Your task to perform on an android device: visit the assistant section in the google photos Image 0: 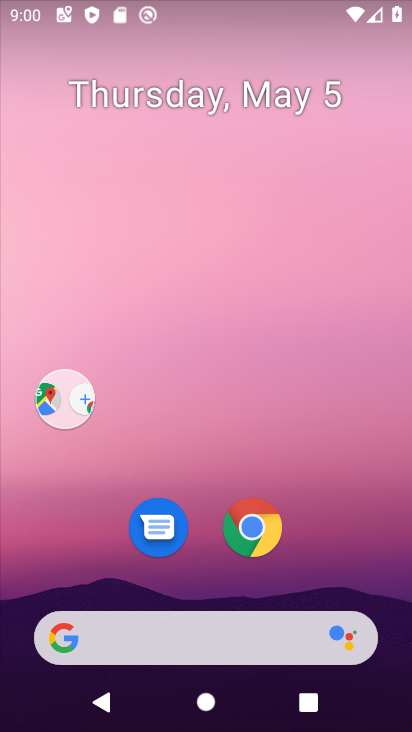
Step 0: drag from (374, 581) to (211, 160)
Your task to perform on an android device: visit the assistant section in the google photos Image 1: 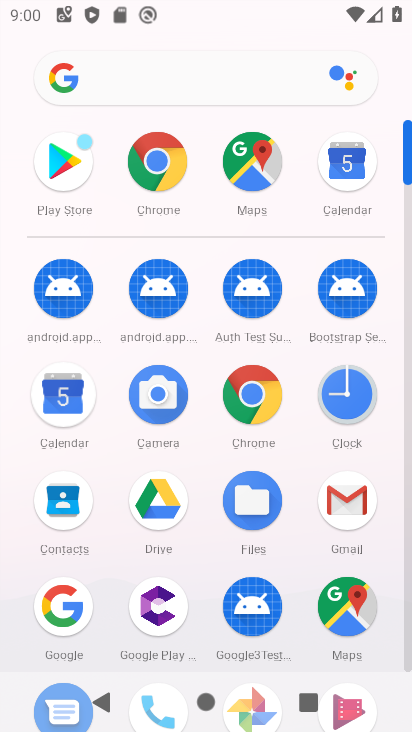
Step 1: drag from (294, 594) to (239, 68)
Your task to perform on an android device: visit the assistant section in the google photos Image 2: 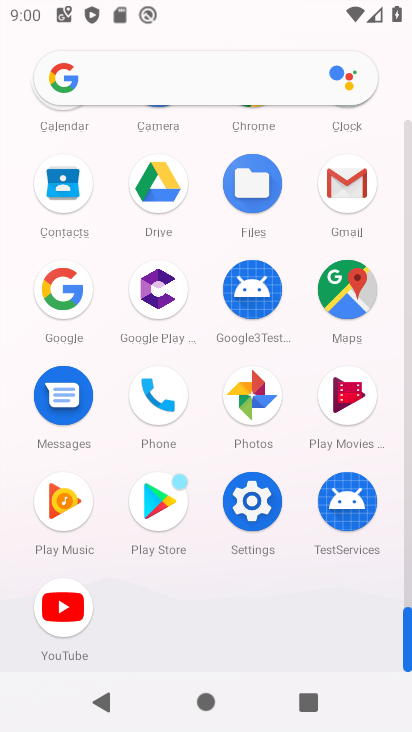
Step 2: click (249, 411)
Your task to perform on an android device: visit the assistant section in the google photos Image 3: 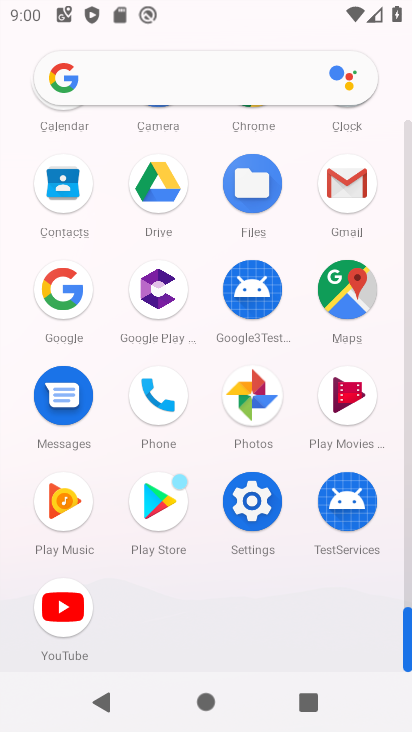
Step 3: click (249, 411)
Your task to perform on an android device: visit the assistant section in the google photos Image 4: 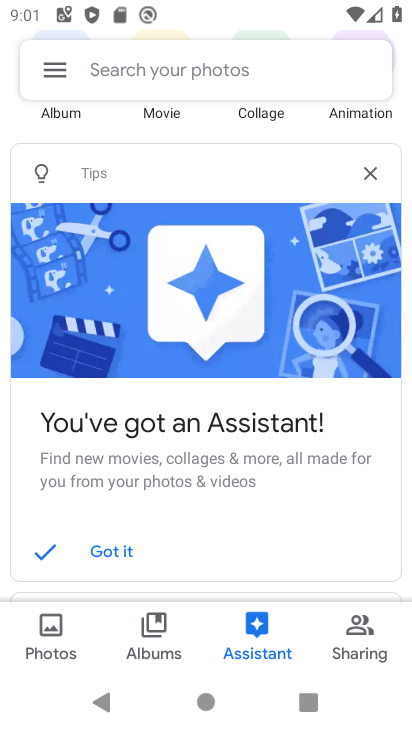
Step 4: click (263, 632)
Your task to perform on an android device: visit the assistant section in the google photos Image 5: 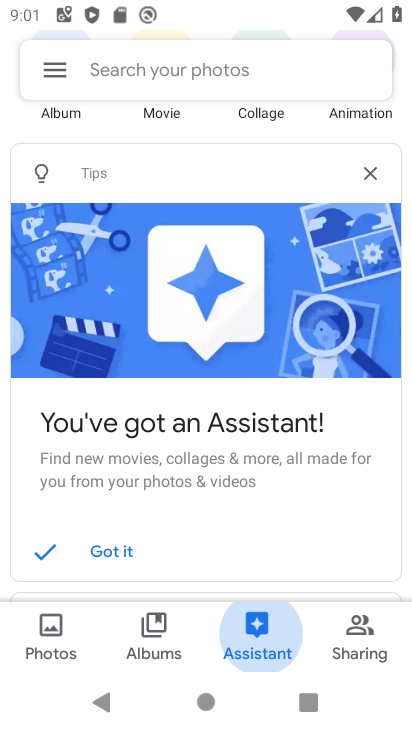
Step 5: click (263, 632)
Your task to perform on an android device: visit the assistant section in the google photos Image 6: 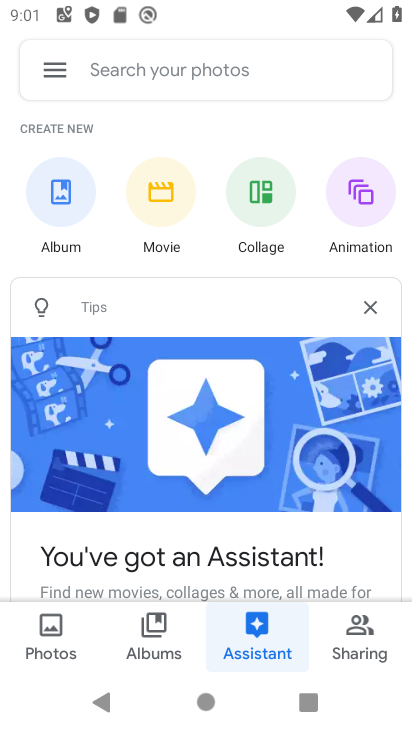
Step 6: click (262, 632)
Your task to perform on an android device: visit the assistant section in the google photos Image 7: 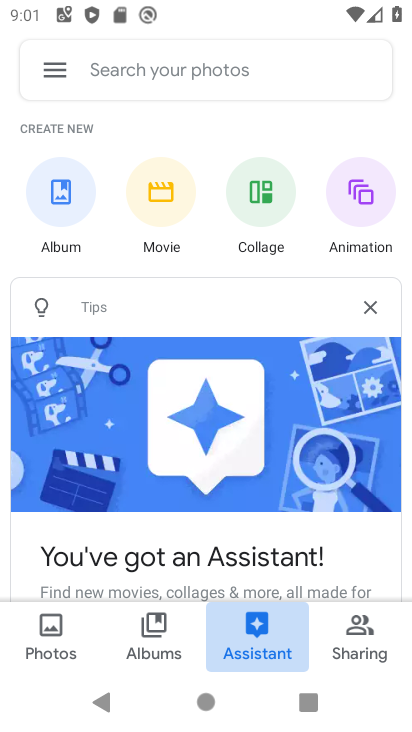
Step 7: click (261, 632)
Your task to perform on an android device: visit the assistant section in the google photos Image 8: 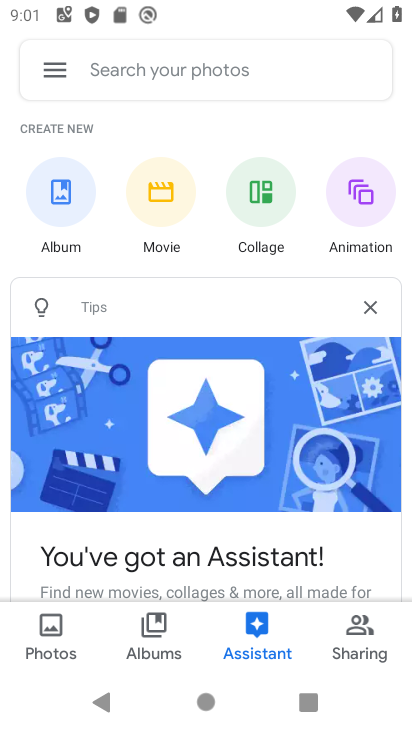
Step 8: task complete